Your task to perform on an android device: turn off picture-in-picture Image 0: 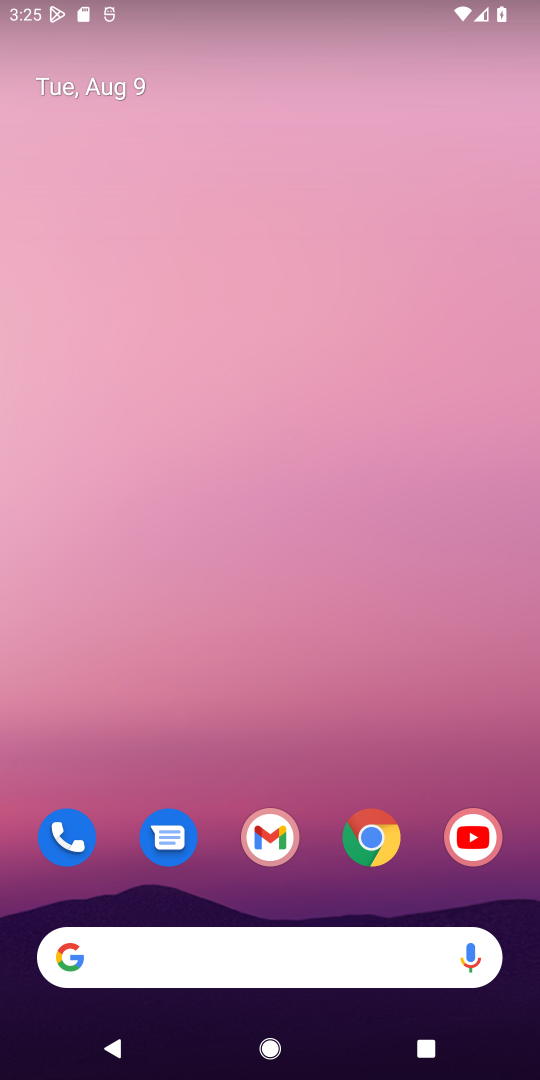
Step 0: drag from (268, 611) to (216, 409)
Your task to perform on an android device: turn off picture-in-picture Image 1: 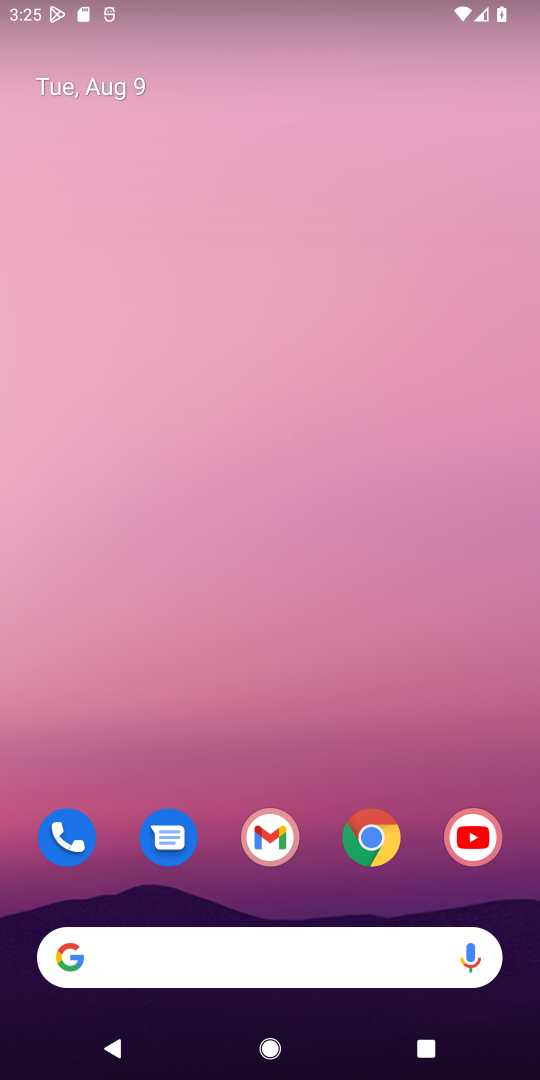
Step 1: drag from (227, 1011) to (262, 295)
Your task to perform on an android device: turn off picture-in-picture Image 2: 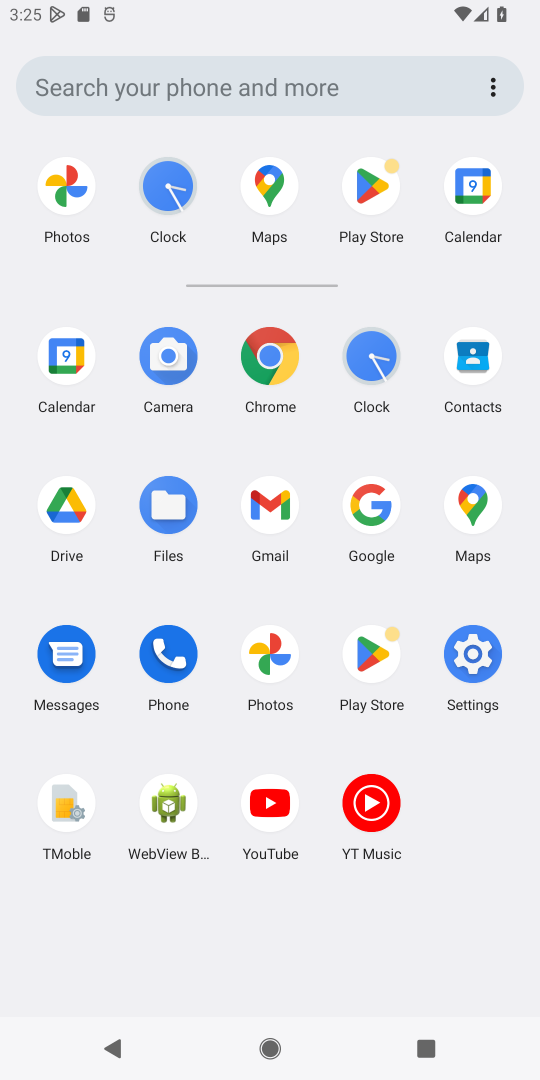
Step 2: click (479, 652)
Your task to perform on an android device: turn off picture-in-picture Image 3: 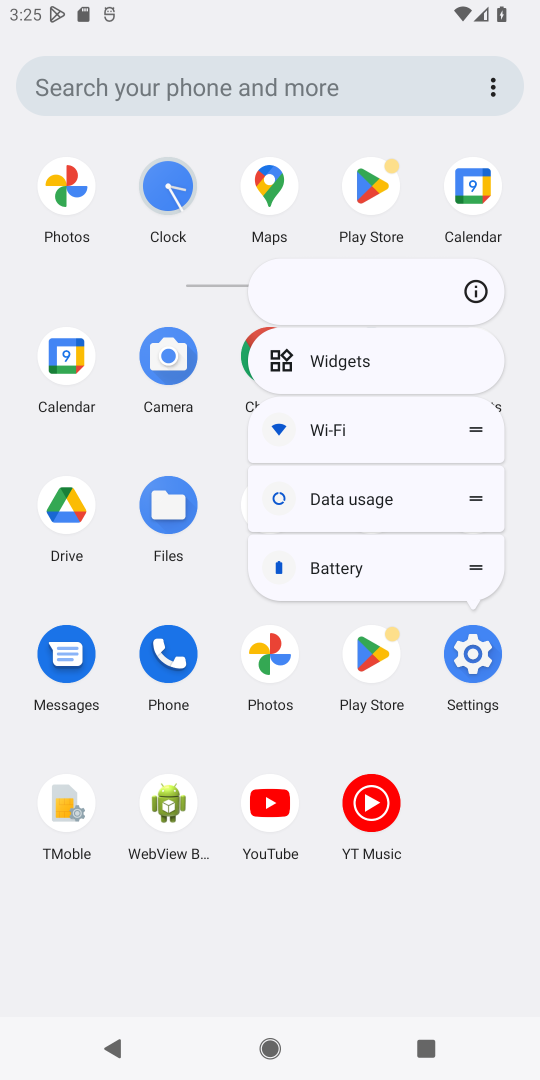
Step 3: click (479, 652)
Your task to perform on an android device: turn off picture-in-picture Image 4: 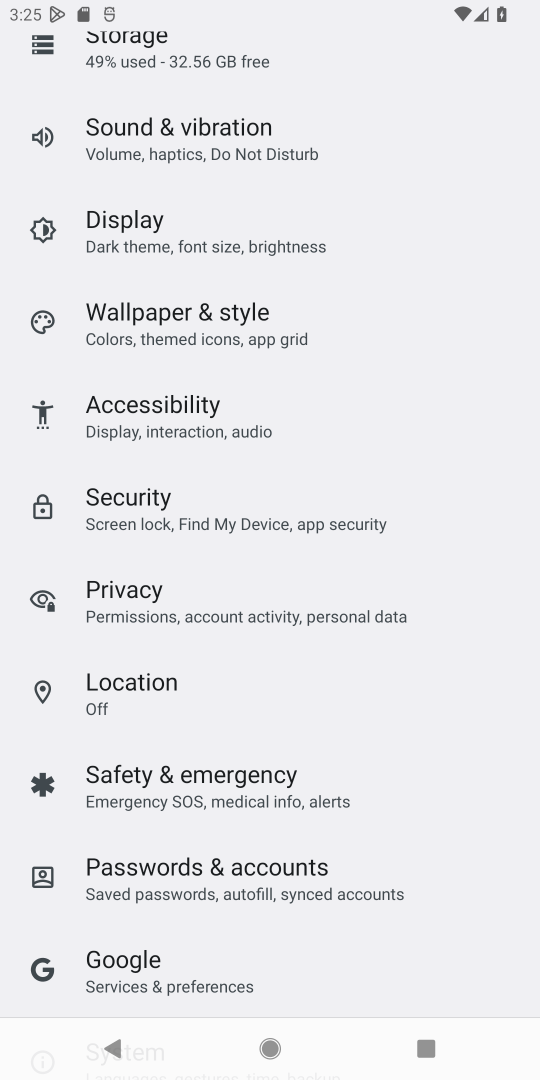
Step 4: drag from (191, 785) to (267, 417)
Your task to perform on an android device: turn off picture-in-picture Image 5: 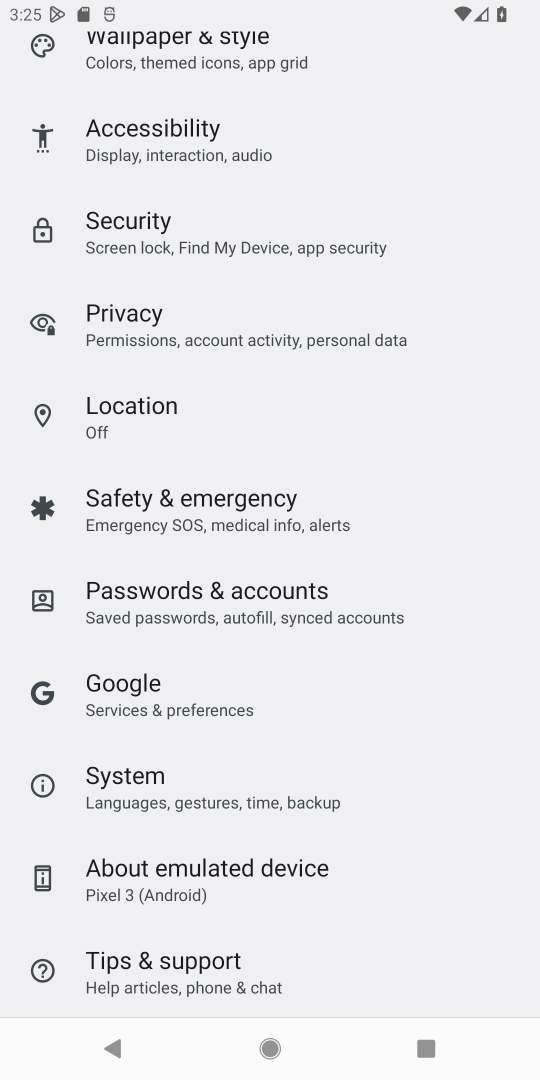
Step 5: drag from (202, 218) to (193, 764)
Your task to perform on an android device: turn off picture-in-picture Image 6: 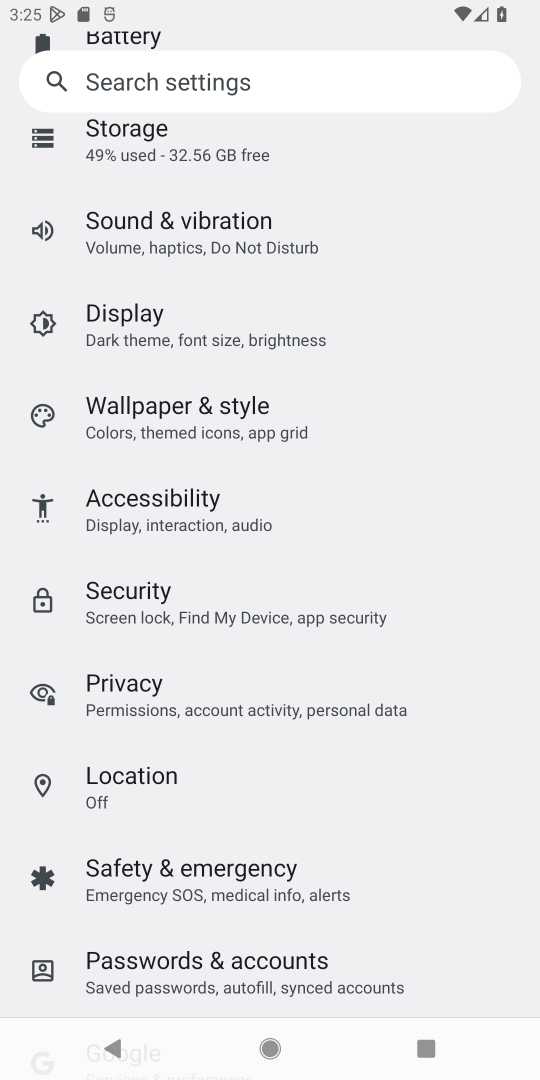
Step 6: drag from (173, 294) to (179, 941)
Your task to perform on an android device: turn off picture-in-picture Image 7: 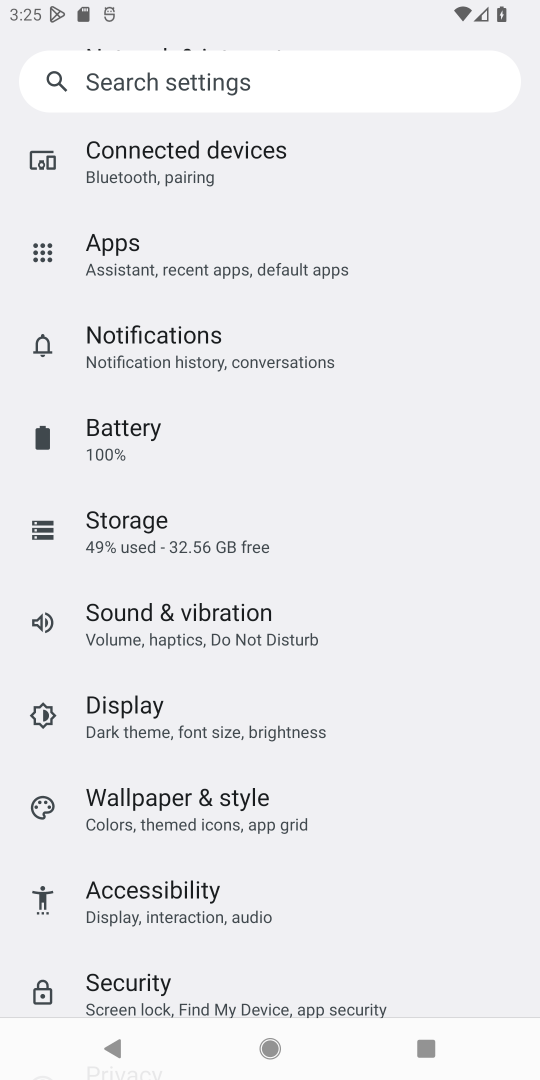
Step 7: drag from (191, 252) to (231, 818)
Your task to perform on an android device: turn off picture-in-picture Image 8: 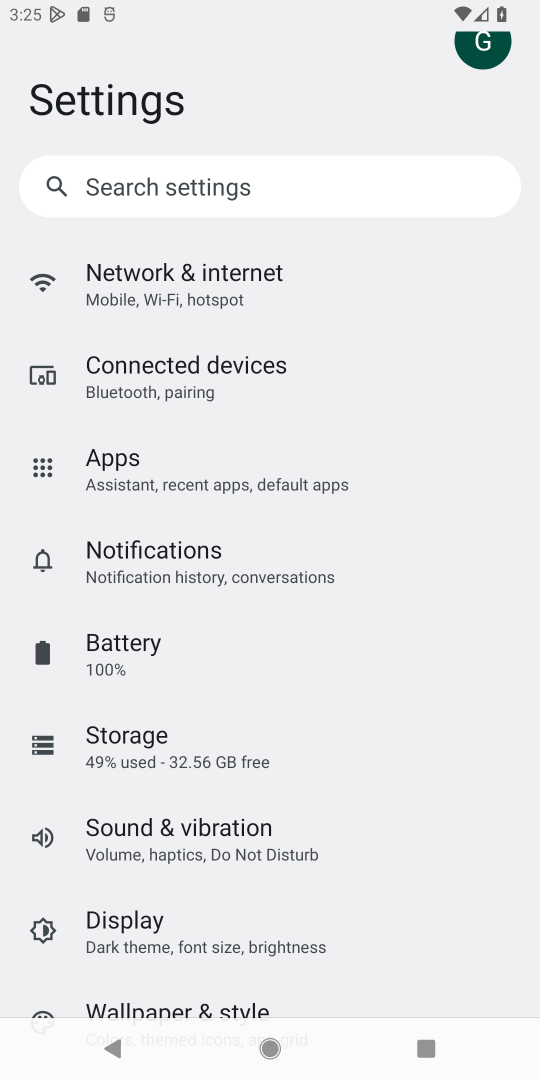
Step 8: click (203, 463)
Your task to perform on an android device: turn off picture-in-picture Image 9: 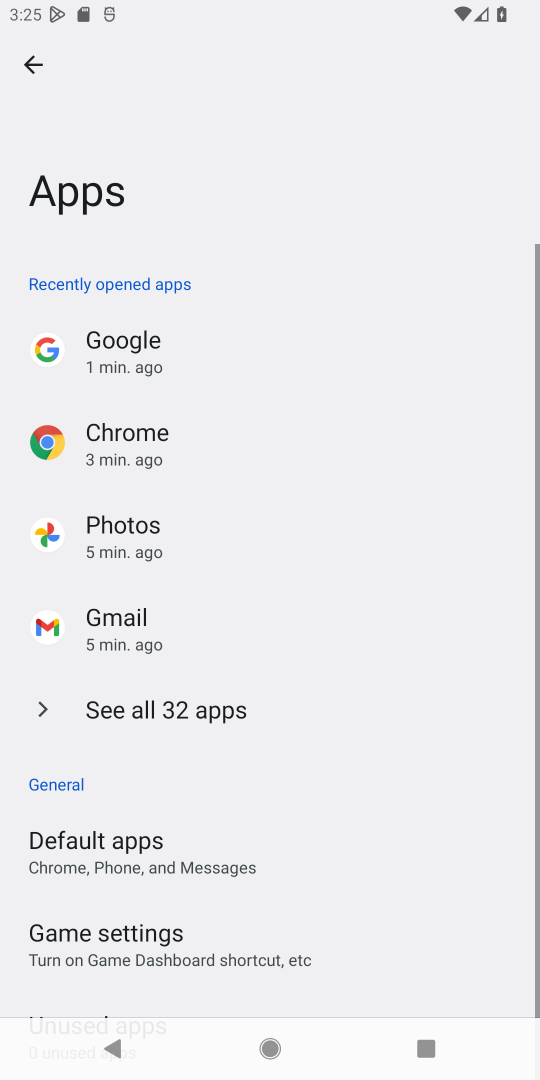
Step 9: drag from (202, 883) to (226, 265)
Your task to perform on an android device: turn off picture-in-picture Image 10: 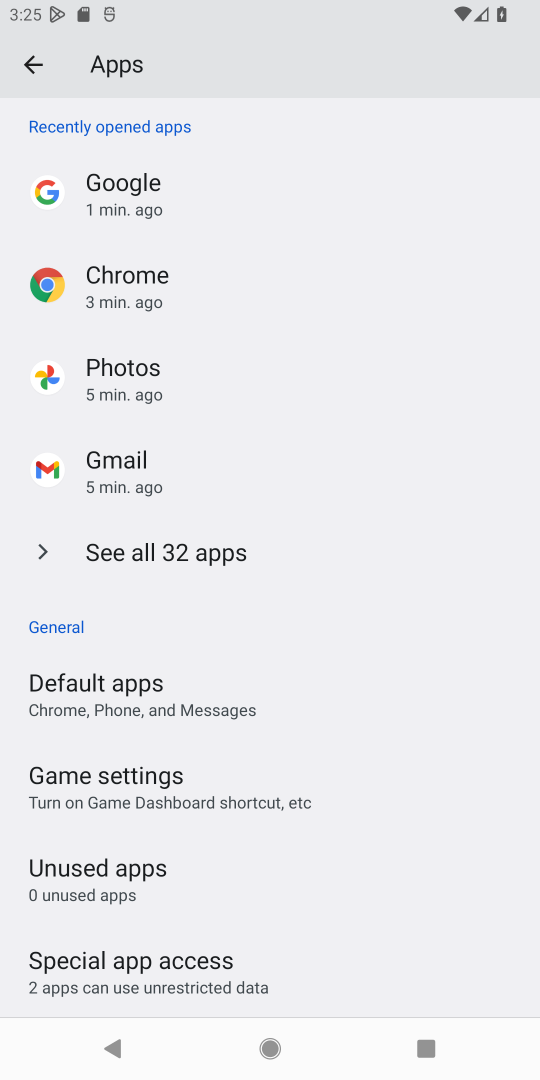
Step 10: click (171, 964)
Your task to perform on an android device: turn off picture-in-picture Image 11: 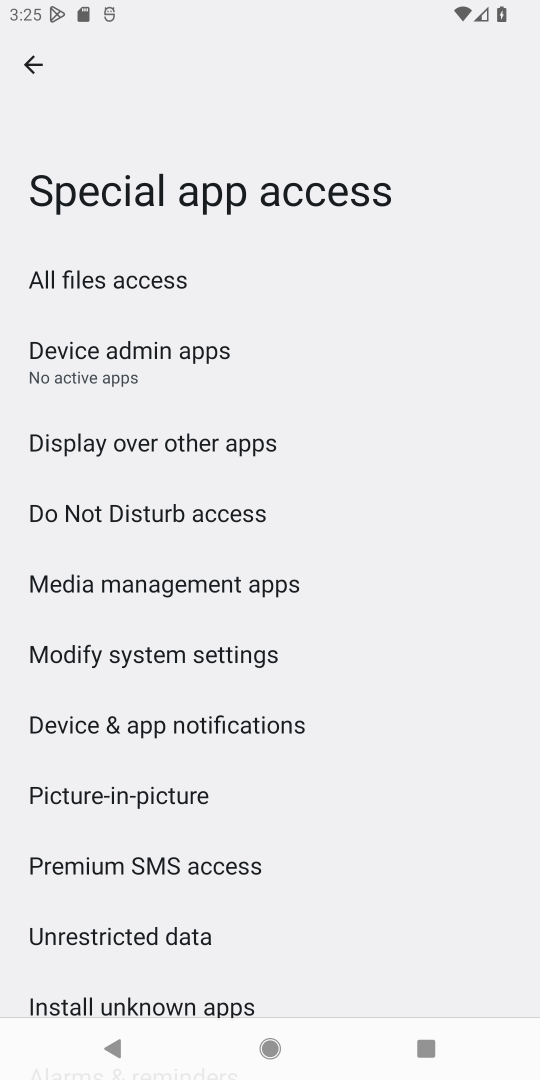
Step 11: click (155, 775)
Your task to perform on an android device: turn off picture-in-picture Image 12: 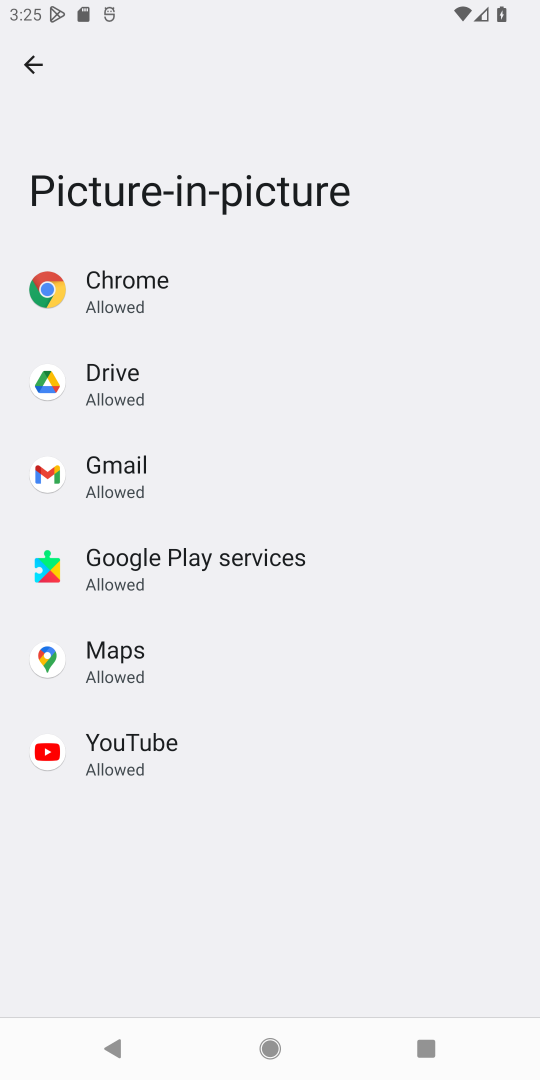
Step 12: click (140, 744)
Your task to perform on an android device: turn off picture-in-picture Image 13: 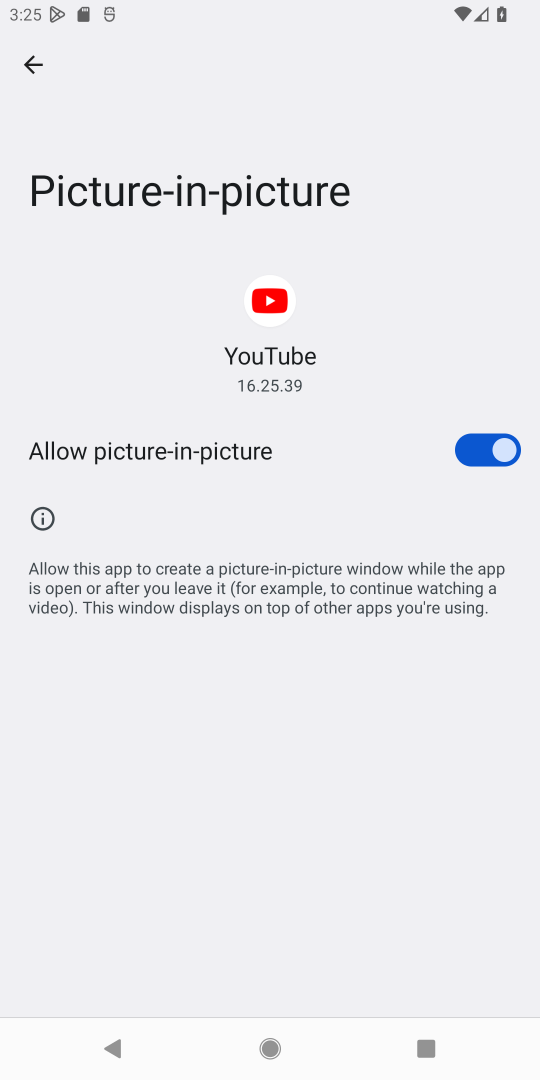
Step 13: click (488, 458)
Your task to perform on an android device: turn off picture-in-picture Image 14: 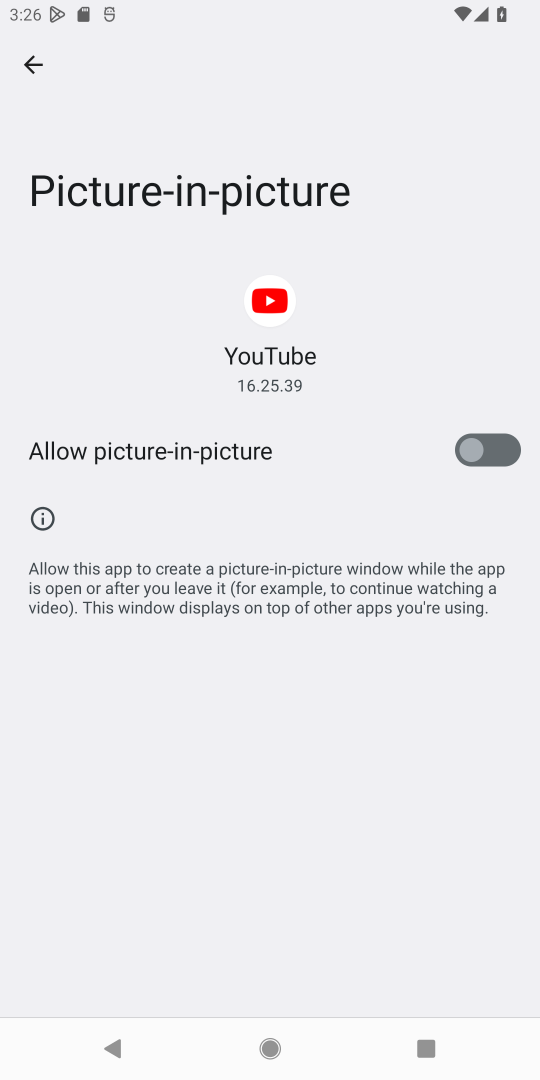
Step 14: task complete